Your task to perform on an android device: Open calendar and show me the third week of next month Image 0: 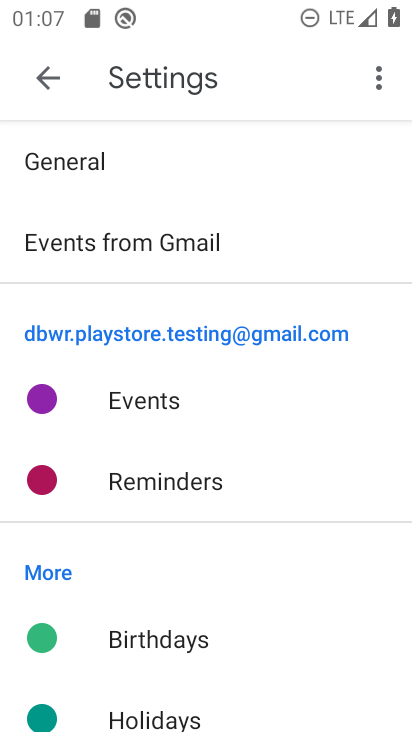
Step 0: press home button
Your task to perform on an android device: Open calendar and show me the third week of next month Image 1: 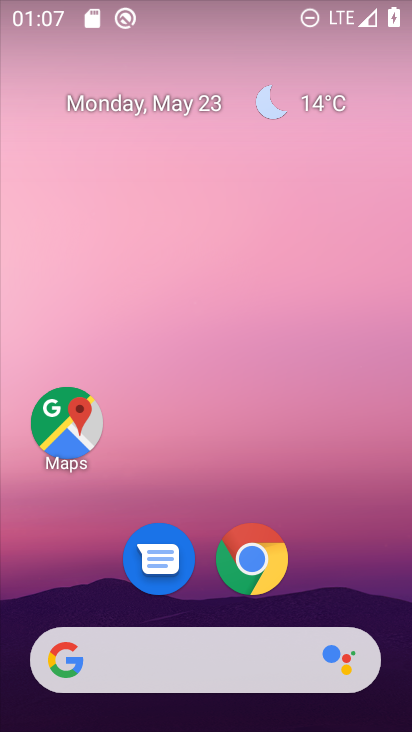
Step 1: drag from (363, 612) to (368, 23)
Your task to perform on an android device: Open calendar and show me the third week of next month Image 2: 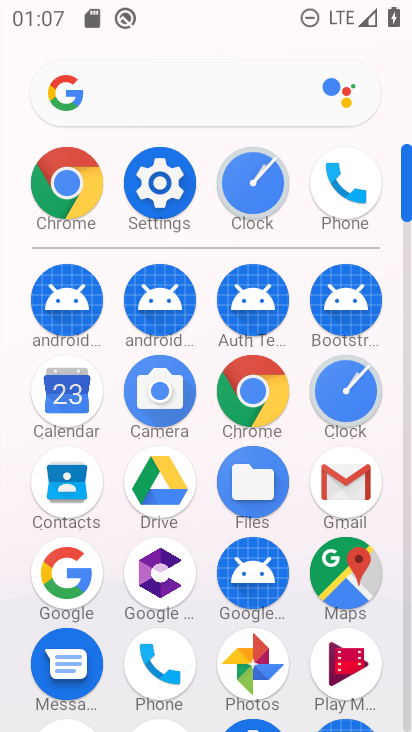
Step 2: click (72, 395)
Your task to perform on an android device: Open calendar and show me the third week of next month Image 3: 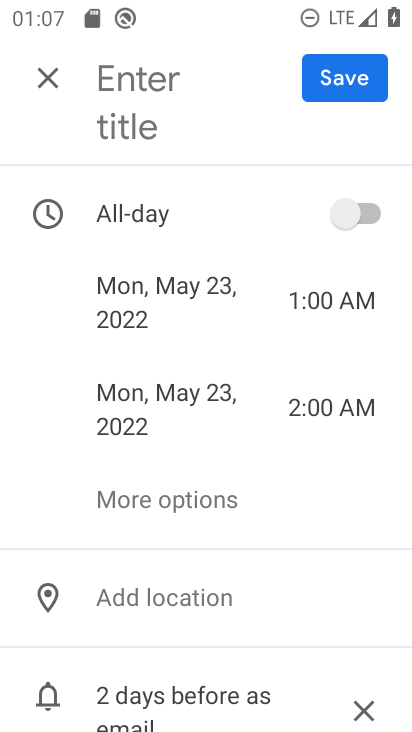
Step 3: click (43, 70)
Your task to perform on an android device: Open calendar and show me the third week of next month Image 4: 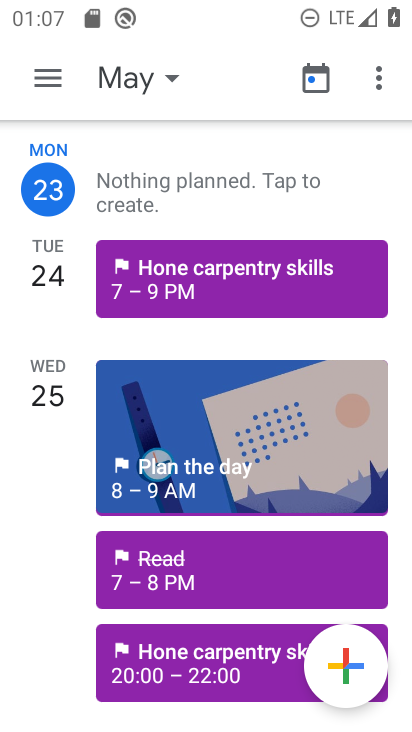
Step 4: click (169, 86)
Your task to perform on an android device: Open calendar and show me the third week of next month Image 5: 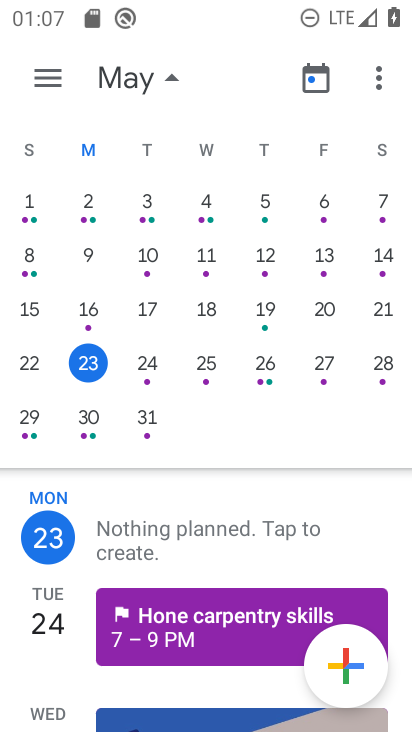
Step 5: drag from (369, 302) to (21, 347)
Your task to perform on an android device: Open calendar and show me the third week of next month Image 6: 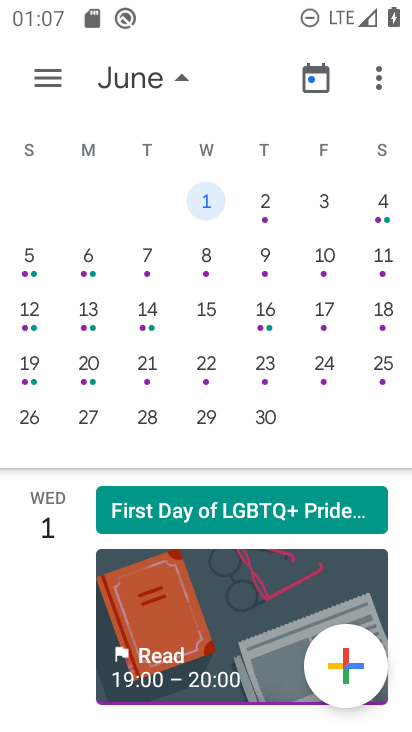
Step 6: click (43, 77)
Your task to perform on an android device: Open calendar and show me the third week of next month Image 7: 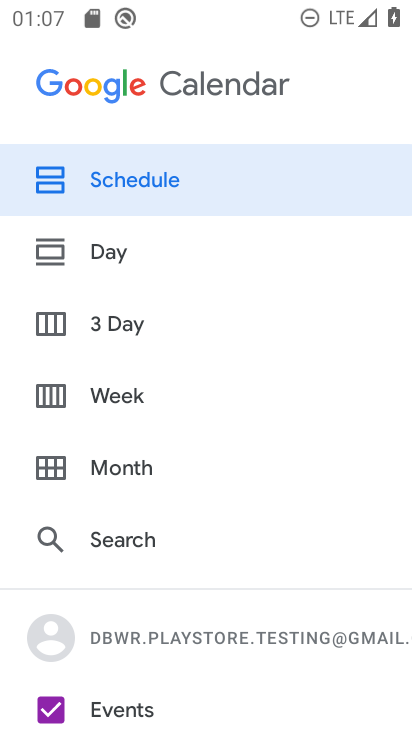
Step 7: click (70, 392)
Your task to perform on an android device: Open calendar and show me the third week of next month Image 8: 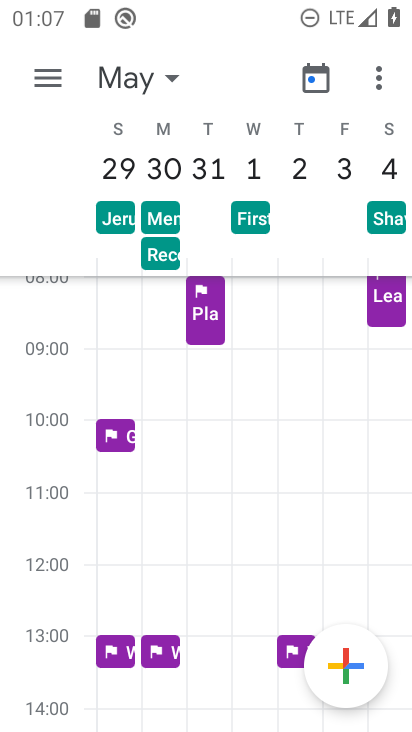
Step 8: task complete